Your task to perform on an android device: empty trash in the gmail app Image 0: 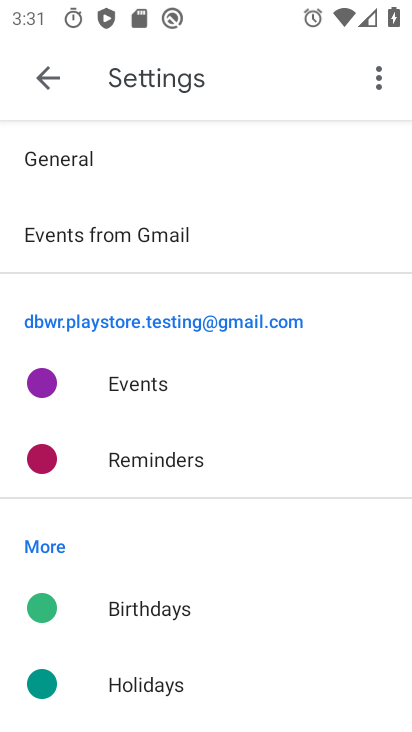
Step 0: press home button
Your task to perform on an android device: empty trash in the gmail app Image 1: 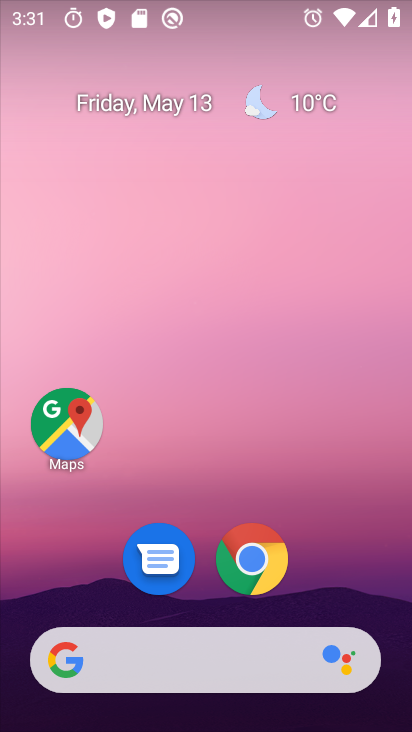
Step 1: drag from (200, 597) to (173, 217)
Your task to perform on an android device: empty trash in the gmail app Image 2: 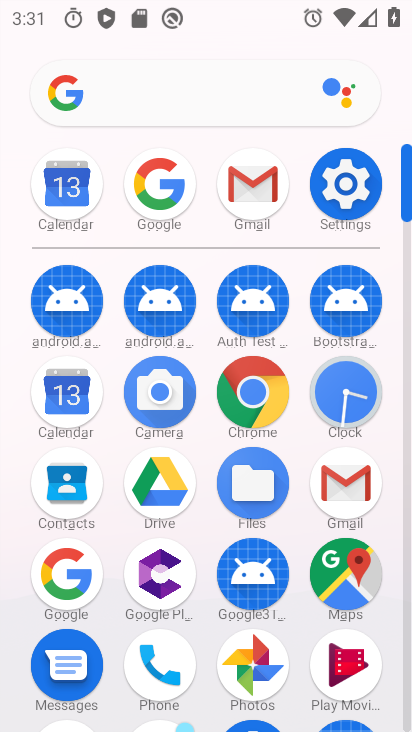
Step 2: click (230, 196)
Your task to perform on an android device: empty trash in the gmail app Image 3: 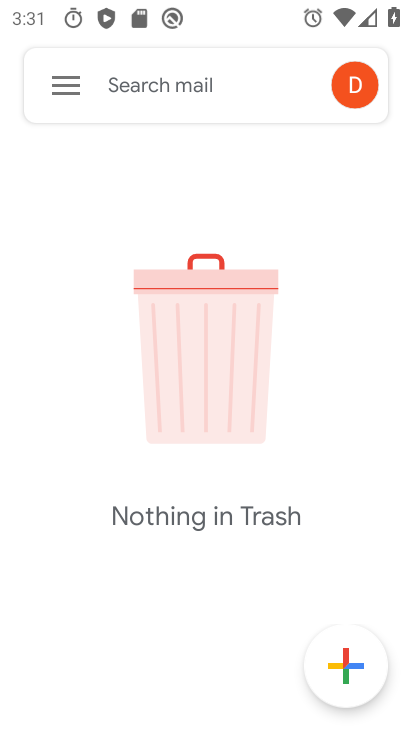
Step 3: click (61, 89)
Your task to perform on an android device: empty trash in the gmail app Image 4: 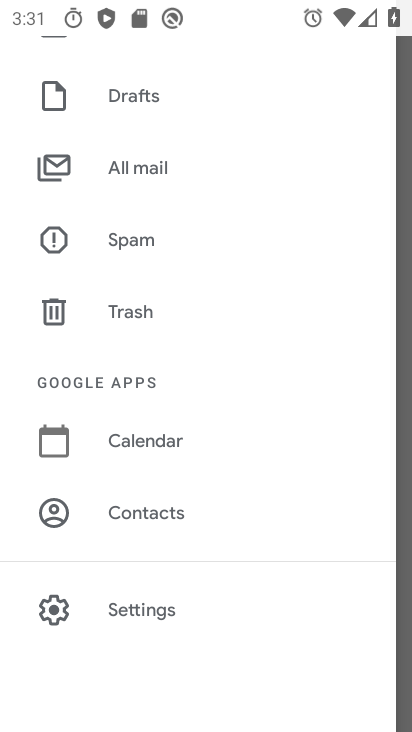
Step 4: click (133, 316)
Your task to perform on an android device: empty trash in the gmail app Image 5: 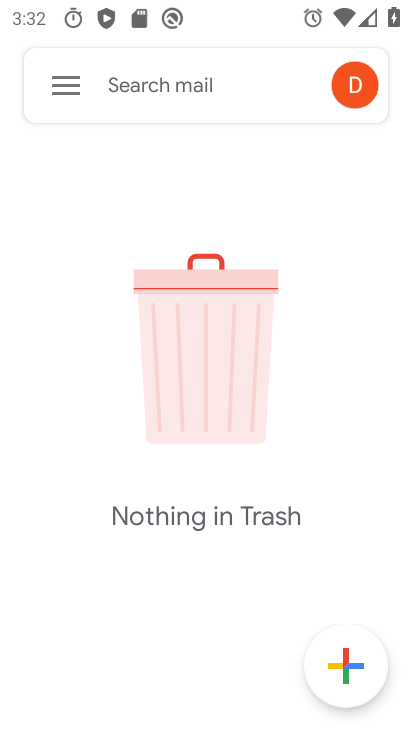
Step 5: task complete